Your task to perform on an android device: What is the recent news? Image 0: 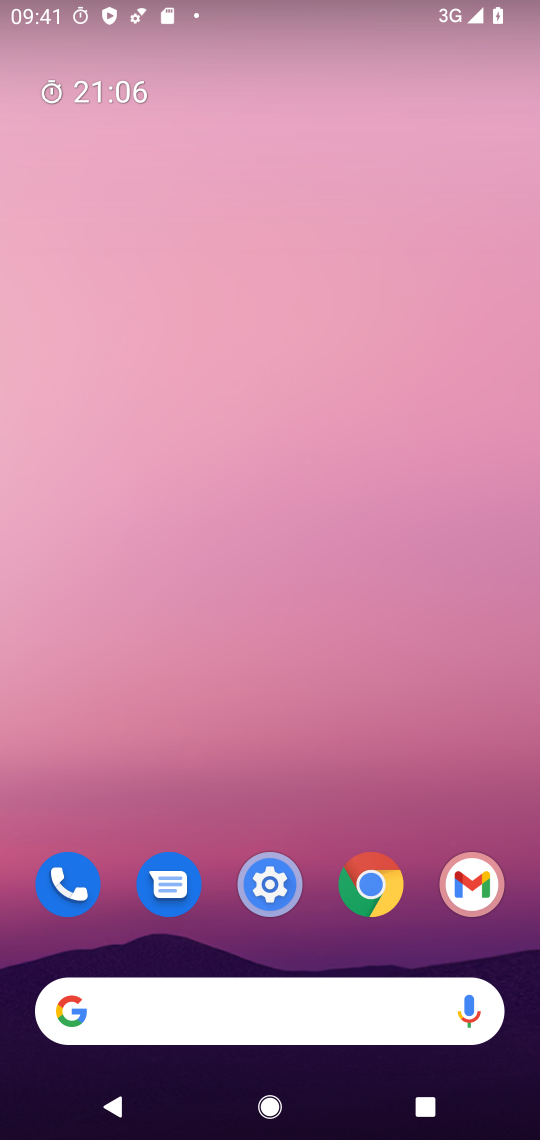
Step 0: drag from (303, 741) to (250, 372)
Your task to perform on an android device: What is the recent news? Image 1: 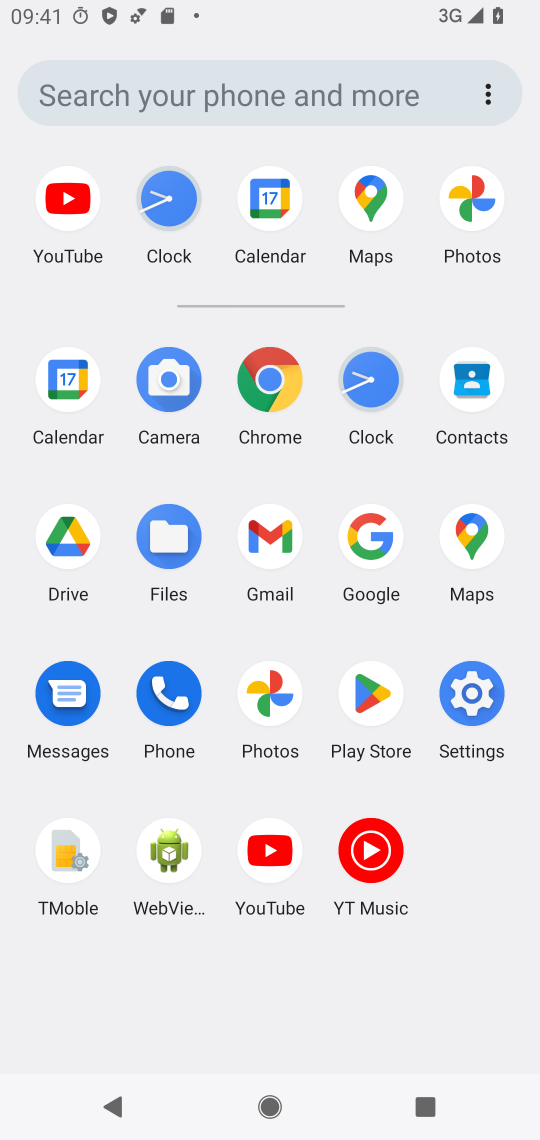
Step 1: click (367, 522)
Your task to perform on an android device: What is the recent news? Image 2: 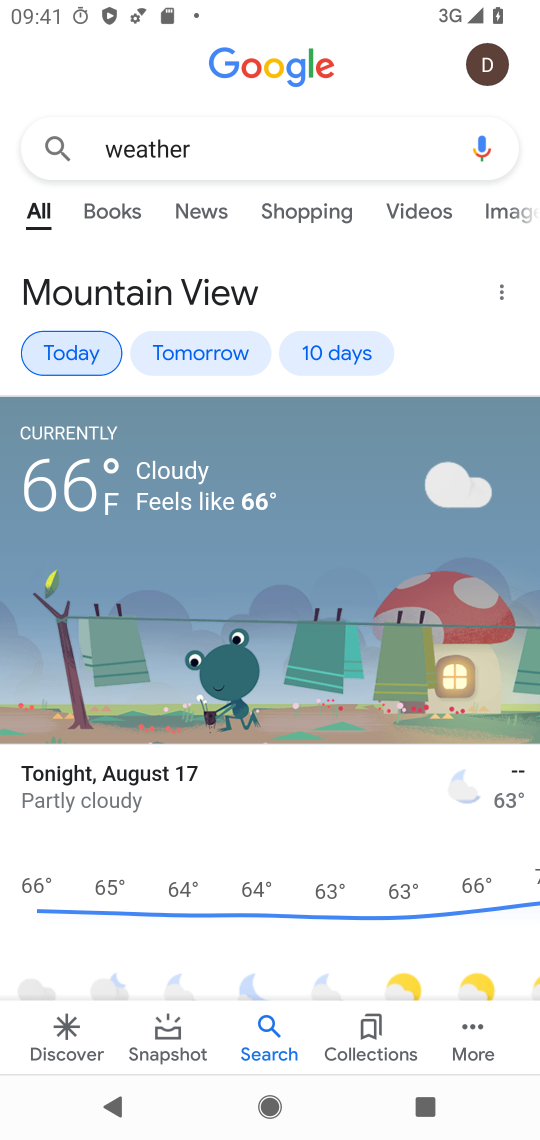
Step 2: click (251, 141)
Your task to perform on an android device: What is the recent news? Image 3: 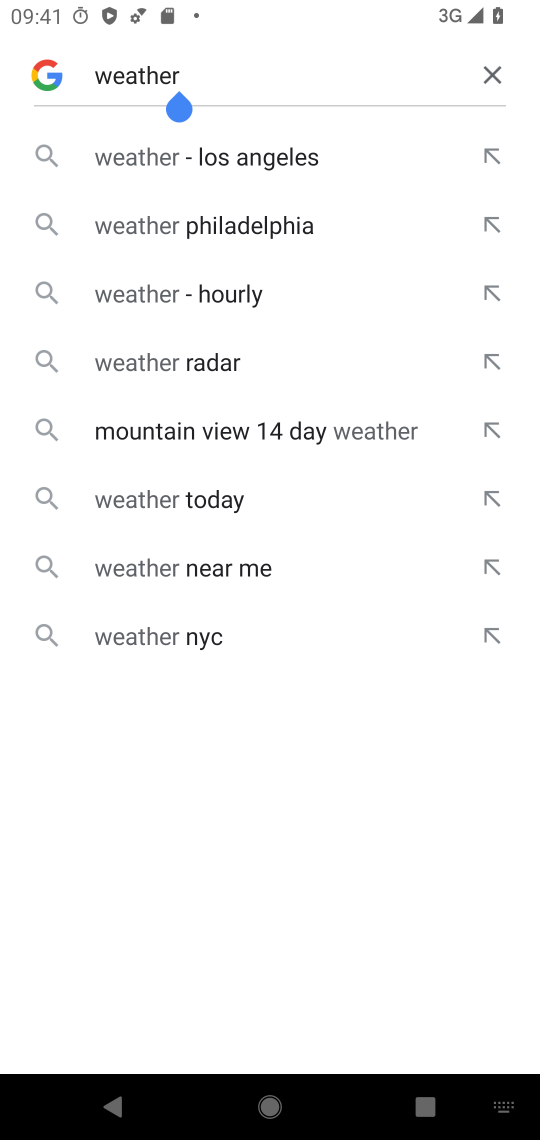
Step 3: click (502, 77)
Your task to perform on an android device: What is the recent news? Image 4: 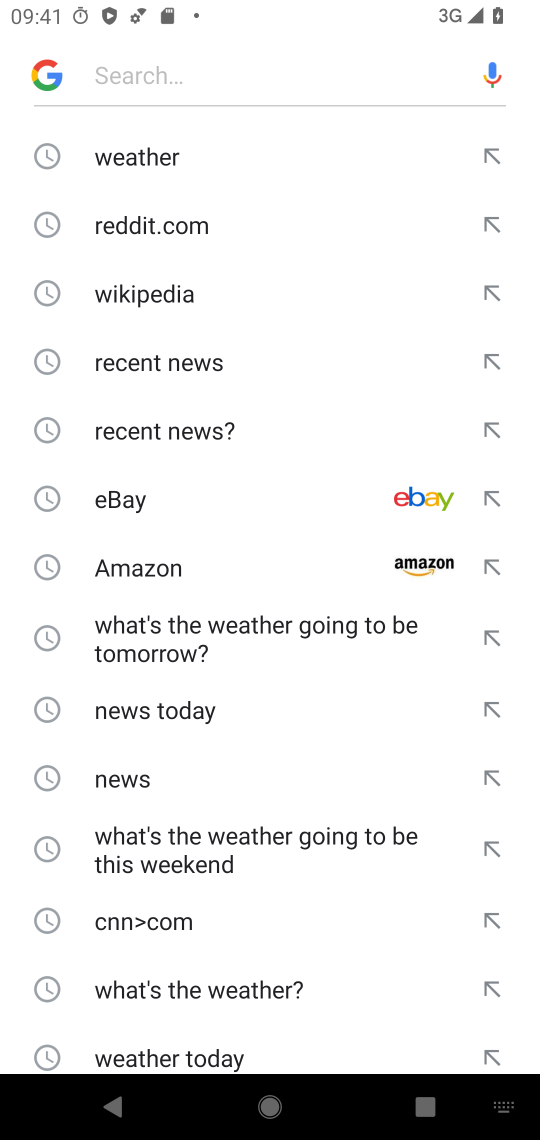
Step 4: type "recent news"
Your task to perform on an android device: What is the recent news? Image 5: 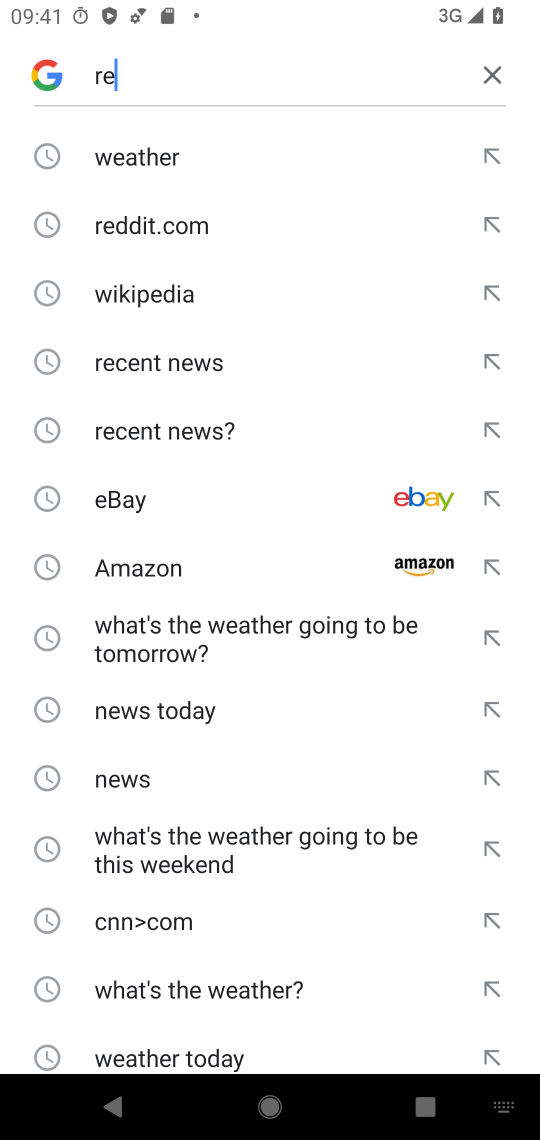
Step 5: type ""
Your task to perform on an android device: What is the recent news? Image 6: 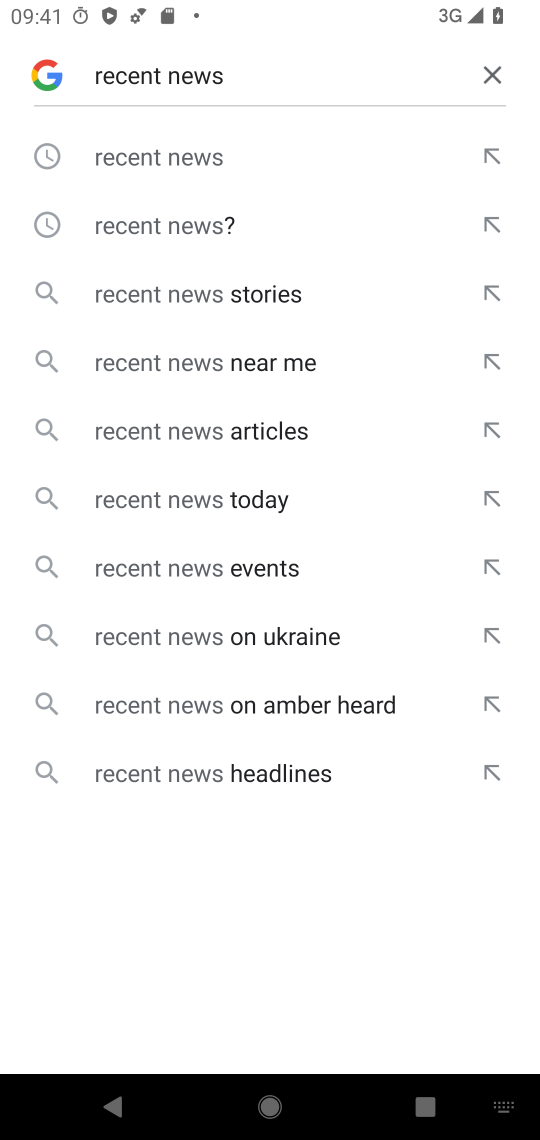
Step 6: click (256, 153)
Your task to perform on an android device: What is the recent news? Image 7: 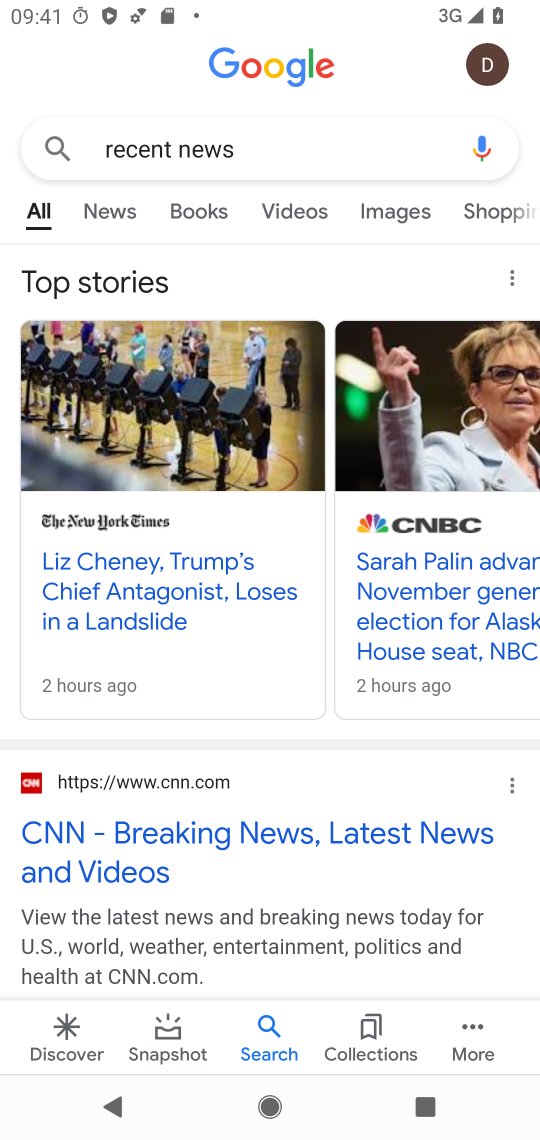
Step 7: click (100, 218)
Your task to perform on an android device: What is the recent news? Image 8: 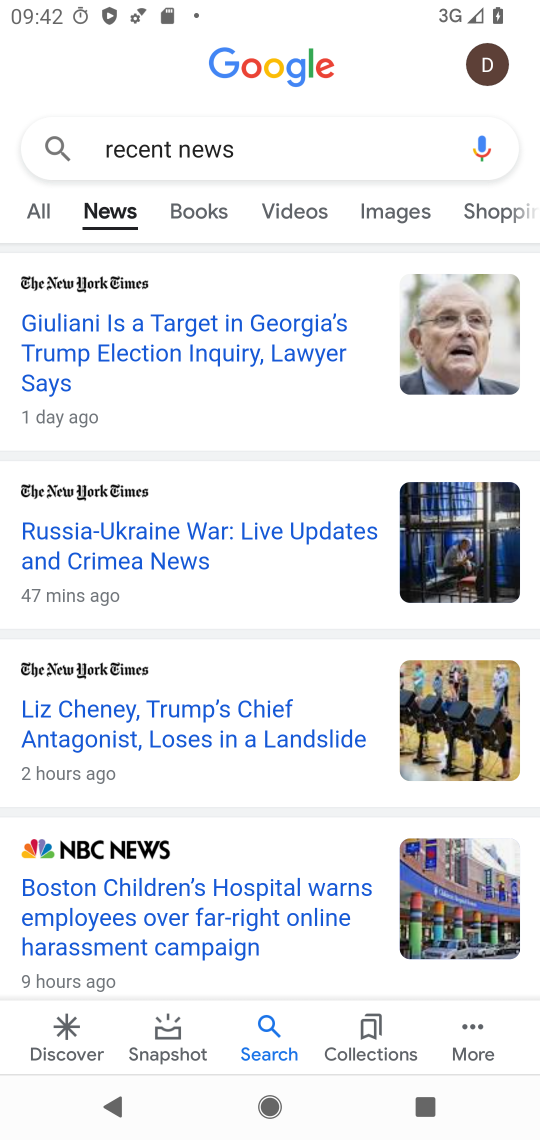
Step 8: task complete